Your task to perform on an android device: search for starred emails in the gmail app Image 0: 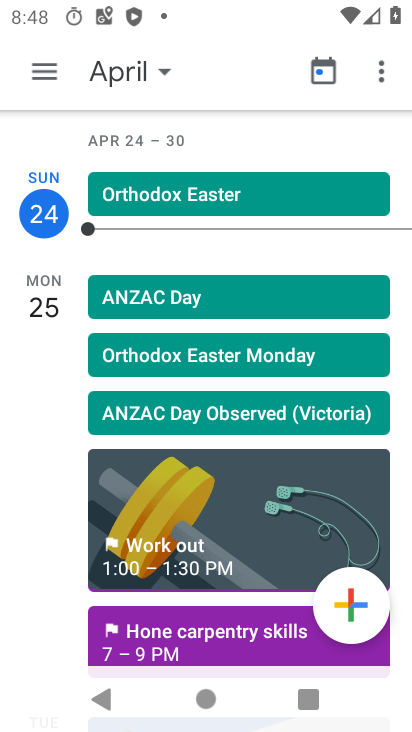
Step 0: press home button
Your task to perform on an android device: search for starred emails in the gmail app Image 1: 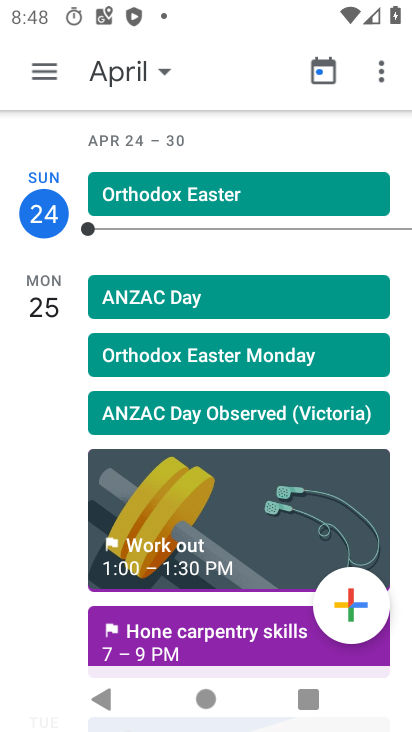
Step 1: press home button
Your task to perform on an android device: search for starred emails in the gmail app Image 2: 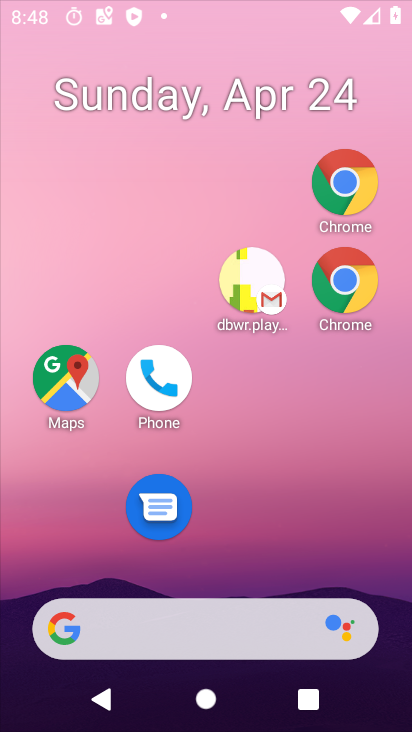
Step 2: press home button
Your task to perform on an android device: search for starred emails in the gmail app Image 3: 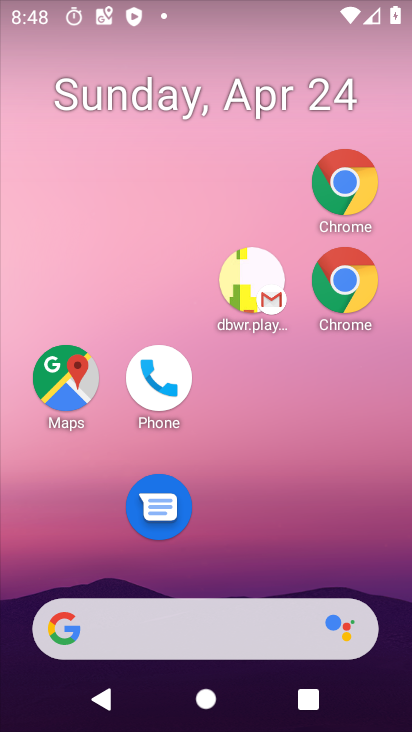
Step 3: drag from (274, 559) to (181, 33)
Your task to perform on an android device: search for starred emails in the gmail app Image 4: 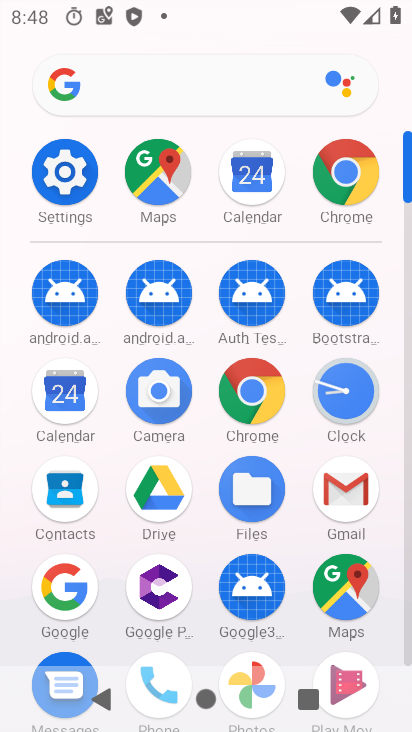
Step 4: click (343, 496)
Your task to perform on an android device: search for starred emails in the gmail app Image 5: 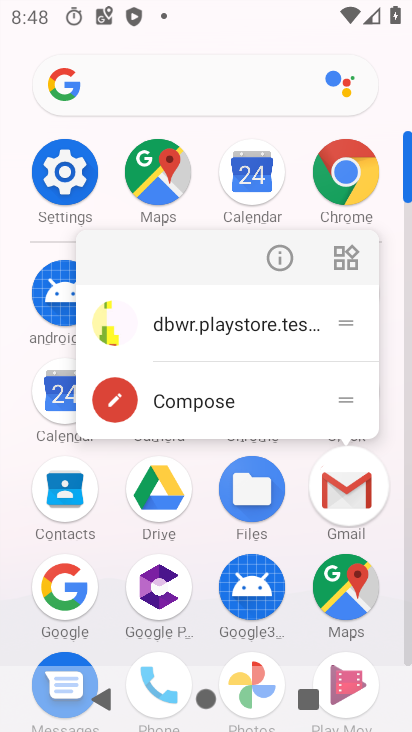
Step 5: click (346, 493)
Your task to perform on an android device: search for starred emails in the gmail app Image 6: 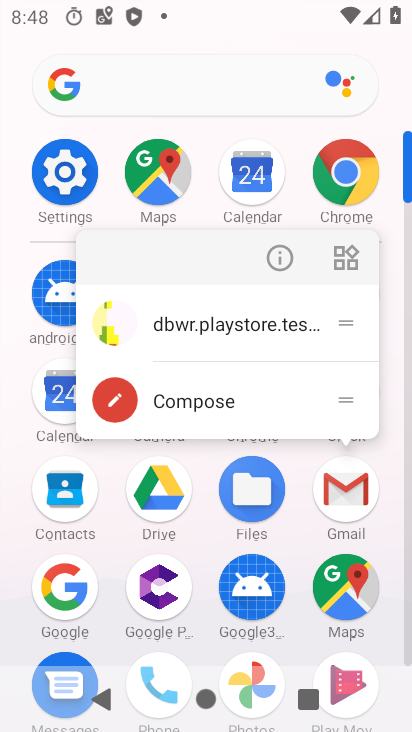
Step 6: click (348, 488)
Your task to perform on an android device: search for starred emails in the gmail app Image 7: 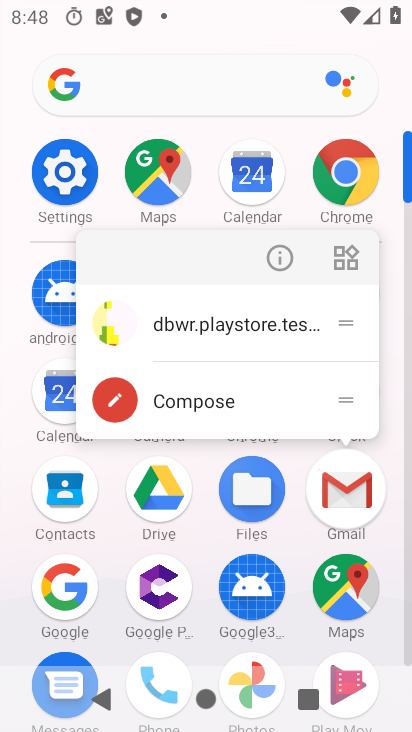
Step 7: click (349, 486)
Your task to perform on an android device: search for starred emails in the gmail app Image 8: 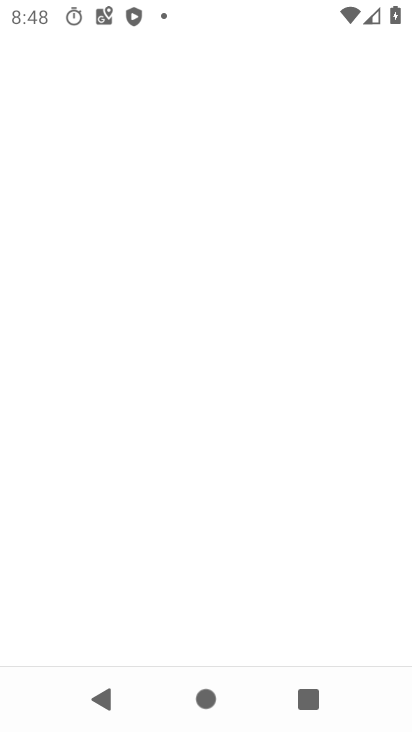
Step 8: click (349, 485)
Your task to perform on an android device: search for starred emails in the gmail app Image 9: 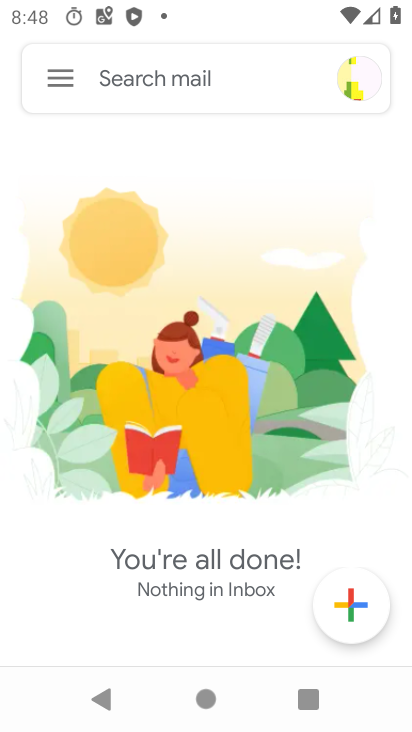
Step 9: click (55, 75)
Your task to perform on an android device: search for starred emails in the gmail app Image 10: 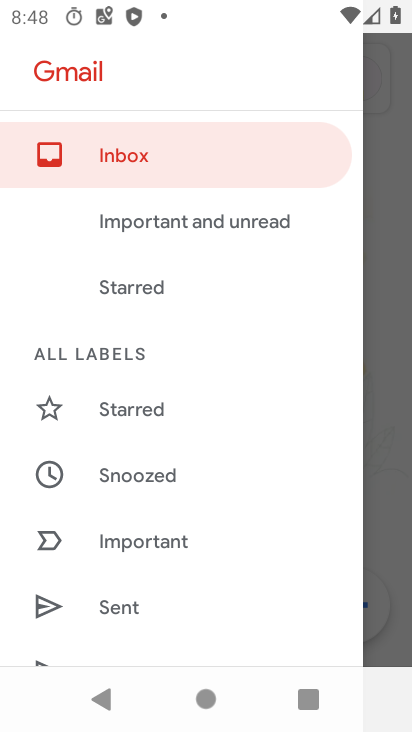
Step 10: drag from (181, 322) to (142, 39)
Your task to perform on an android device: search for starred emails in the gmail app Image 11: 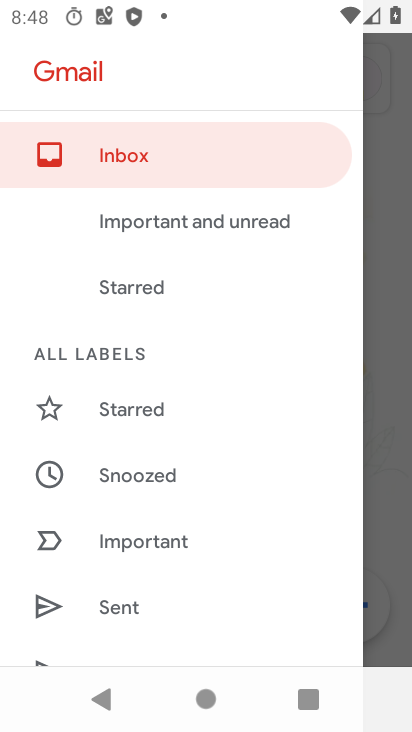
Step 11: drag from (96, 534) to (65, 206)
Your task to perform on an android device: search for starred emails in the gmail app Image 12: 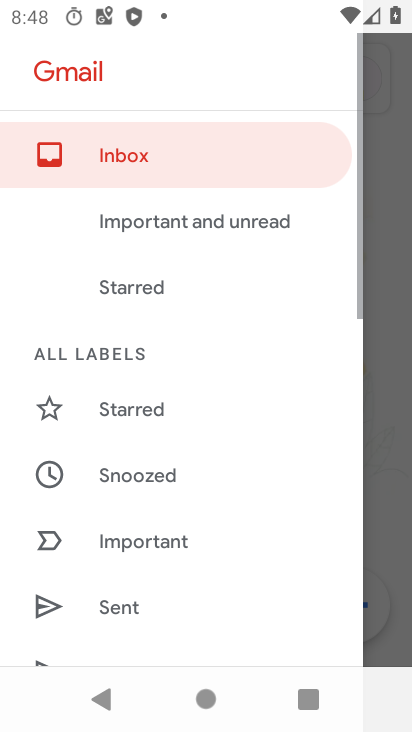
Step 12: drag from (198, 451) to (161, 193)
Your task to perform on an android device: search for starred emails in the gmail app Image 13: 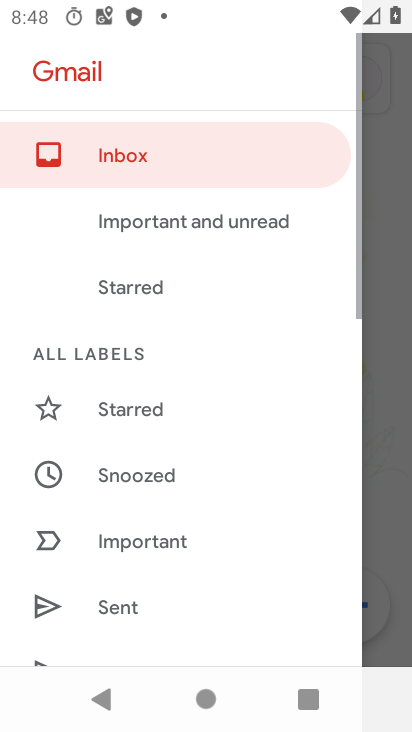
Step 13: drag from (233, 465) to (204, 18)
Your task to perform on an android device: search for starred emails in the gmail app Image 14: 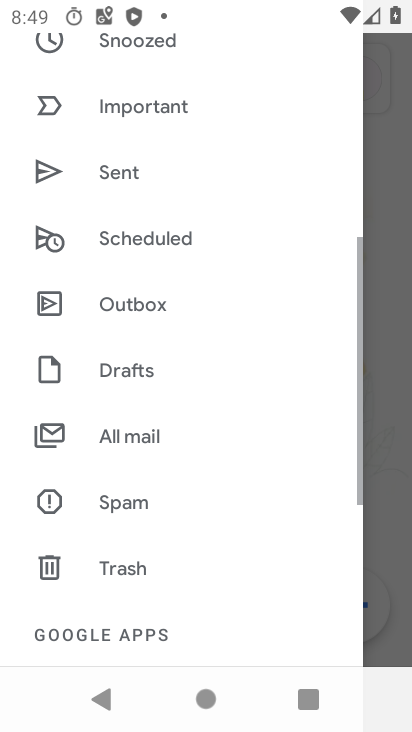
Step 14: drag from (231, 402) to (227, 22)
Your task to perform on an android device: search for starred emails in the gmail app Image 15: 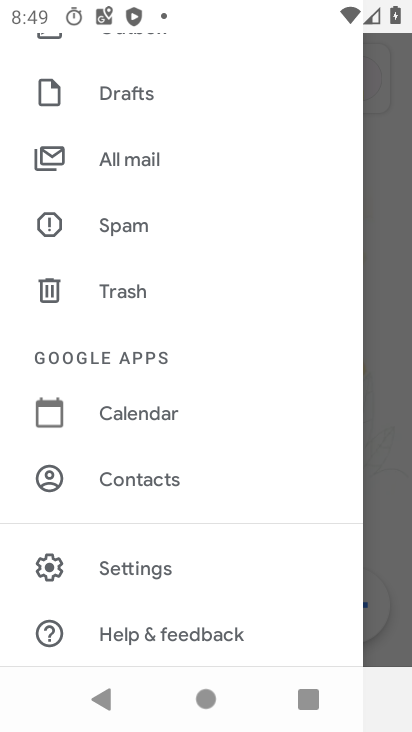
Step 15: click (126, 151)
Your task to perform on an android device: search for starred emails in the gmail app Image 16: 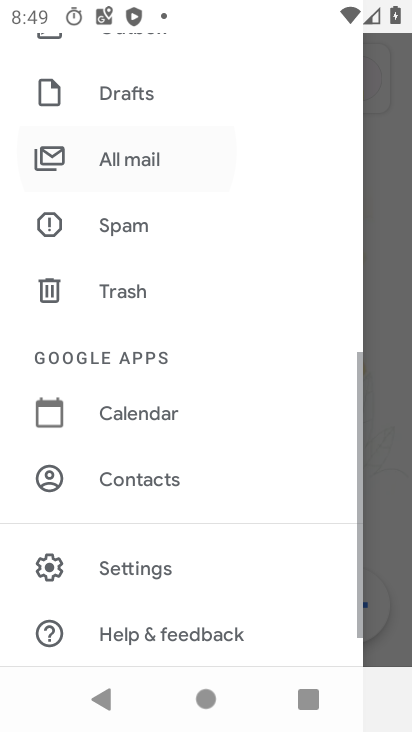
Step 16: click (126, 151)
Your task to perform on an android device: search for starred emails in the gmail app Image 17: 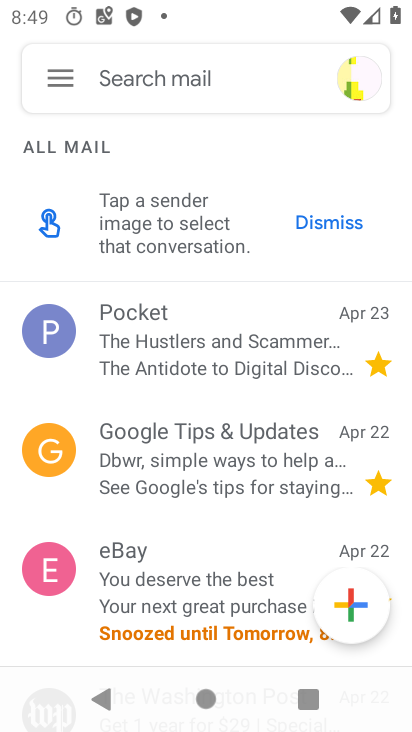
Step 17: click (271, 355)
Your task to perform on an android device: search for starred emails in the gmail app Image 18: 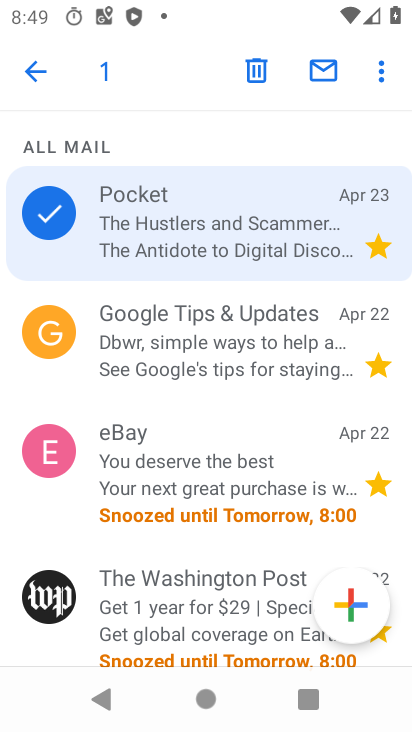
Step 18: click (240, 174)
Your task to perform on an android device: search for starred emails in the gmail app Image 19: 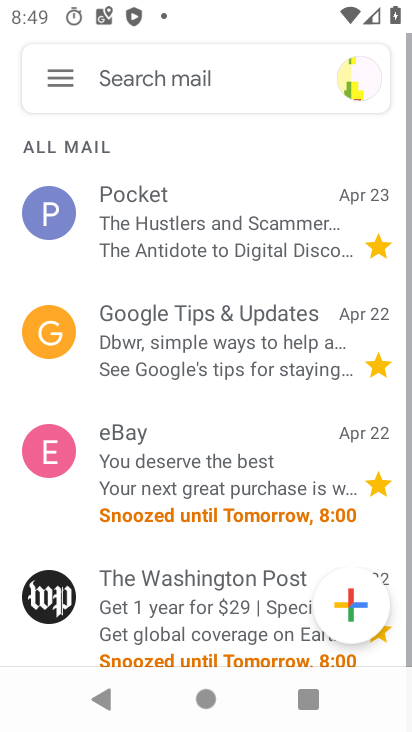
Step 19: task complete